Your task to perform on an android device: turn off priority inbox in the gmail app Image 0: 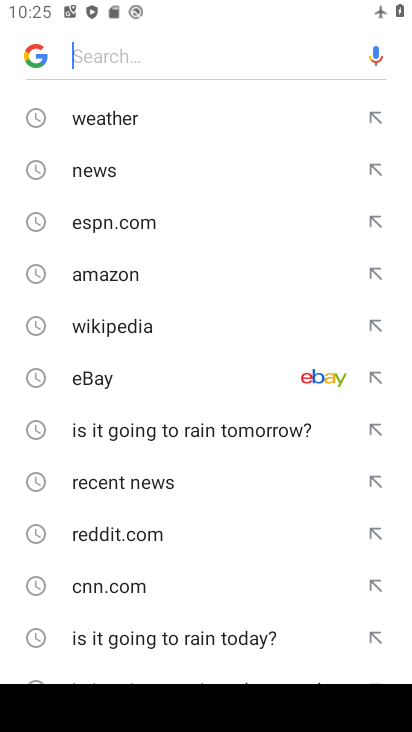
Step 0: press home button
Your task to perform on an android device: turn off priority inbox in the gmail app Image 1: 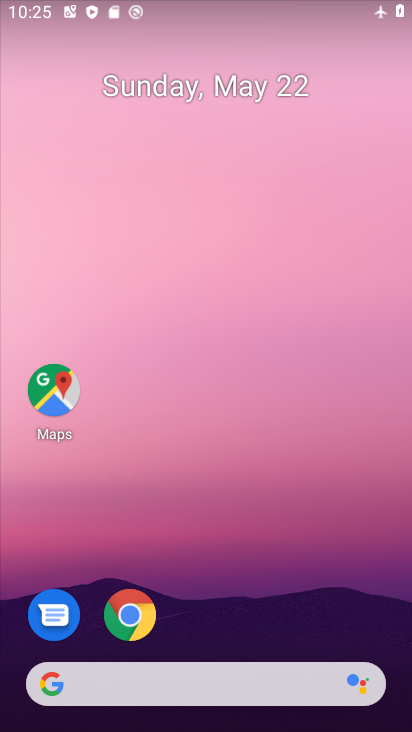
Step 1: drag from (261, 605) to (213, 132)
Your task to perform on an android device: turn off priority inbox in the gmail app Image 2: 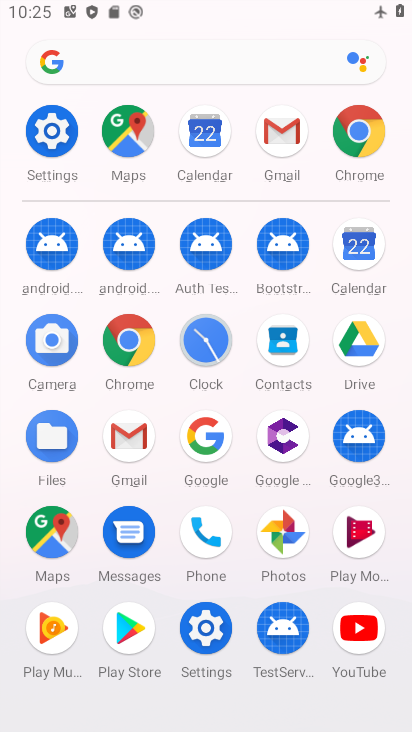
Step 2: click (282, 129)
Your task to perform on an android device: turn off priority inbox in the gmail app Image 3: 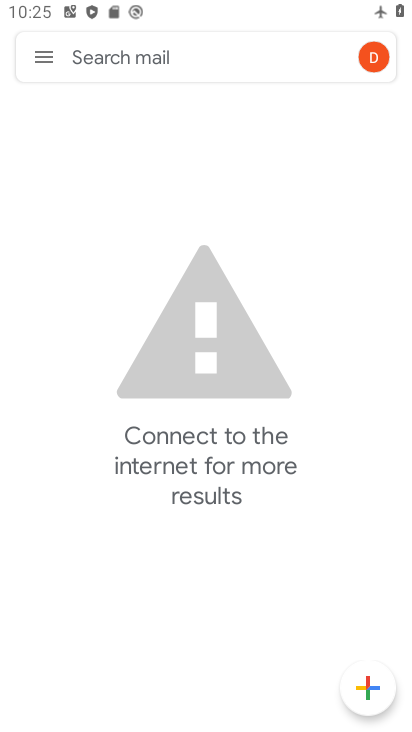
Step 3: click (41, 59)
Your task to perform on an android device: turn off priority inbox in the gmail app Image 4: 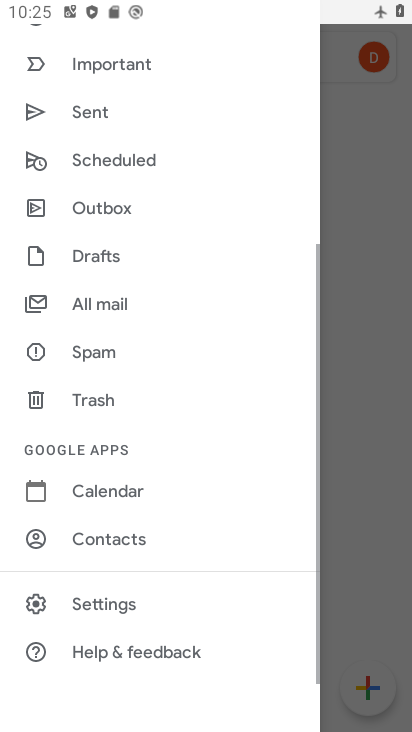
Step 4: click (97, 614)
Your task to perform on an android device: turn off priority inbox in the gmail app Image 5: 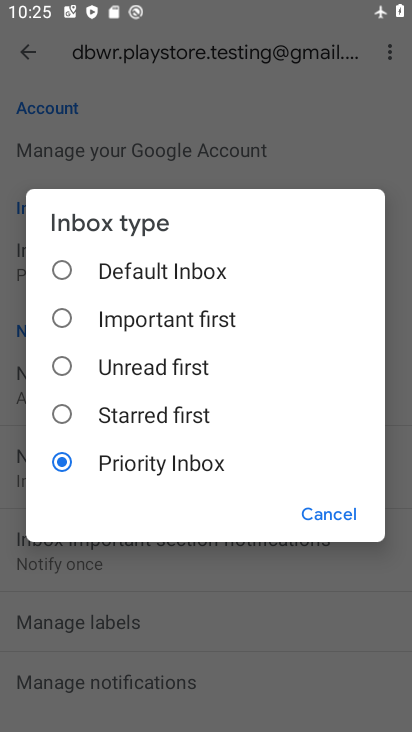
Step 5: task complete